Your task to perform on an android device: What's on my calendar tomorrow? Image 0: 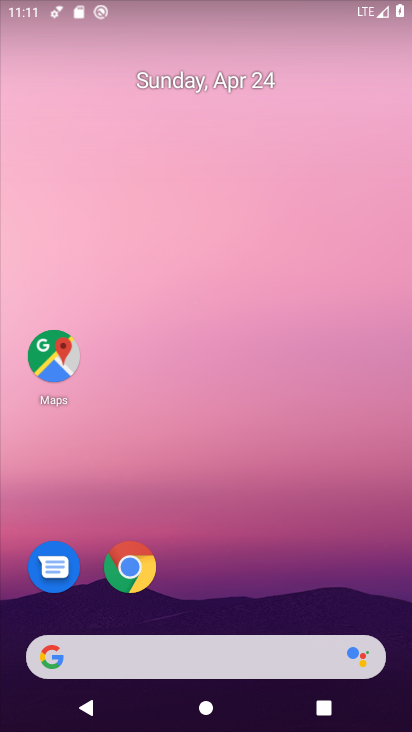
Step 0: drag from (310, 529) to (358, 123)
Your task to perform on an android device: What's on my calendar tomorrow? Image 1: 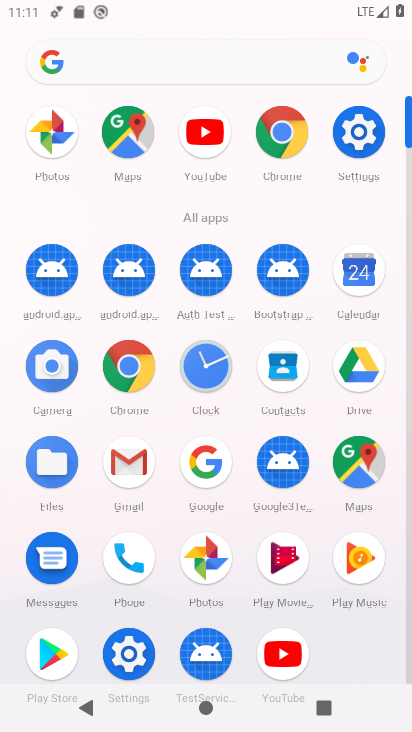
Step 1: click (362, 295)
Your task to perform on an android device: What's on my calendar tomorrow? Image 2: 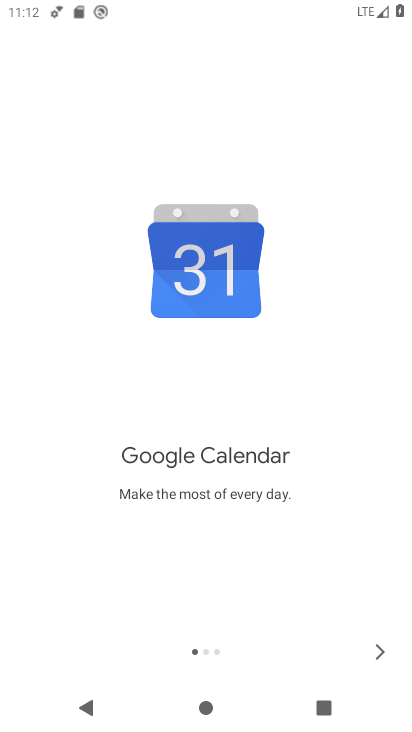
Step 2: click (376, 643)
Your task to perform on an android device: What's on my calendar tomorrow? Image 3: 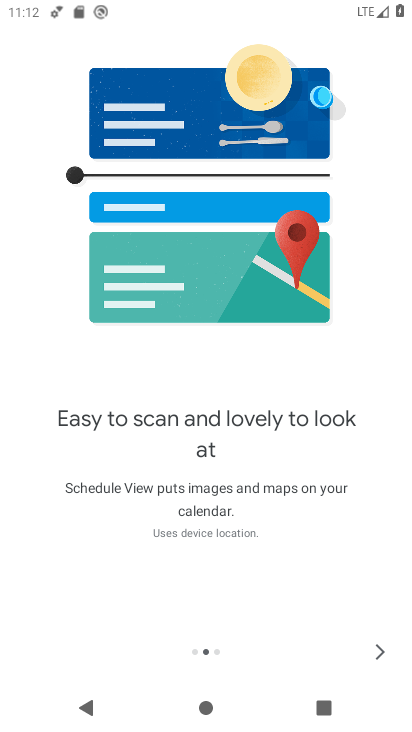
Step 3: click (376, 643)
Your task to perform on an android device: What's on my calendar tomorrow? Image 4: 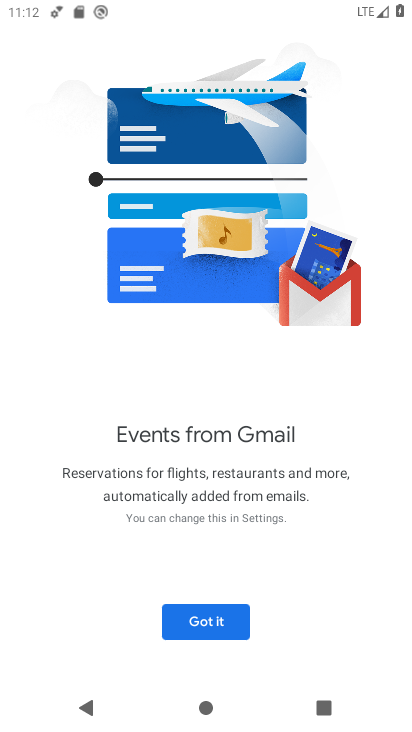
Step 4: click (227, 629)
Your task to perform on an android device: What's on my calendar tomorrow? Image 5: 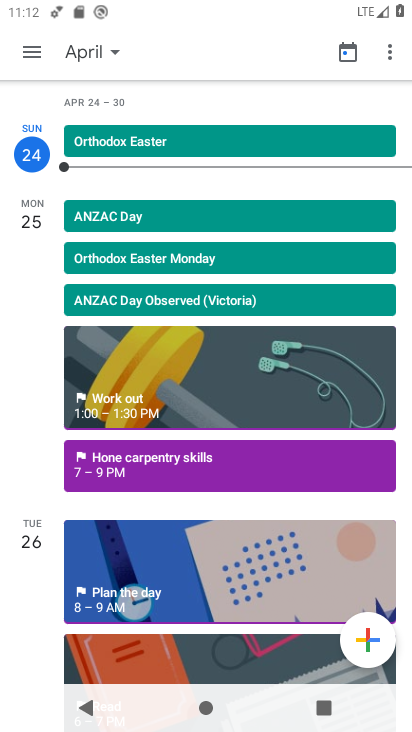
Step 5: task complete